Your task to perform on an android device: star an email in the gmail app Image 0: 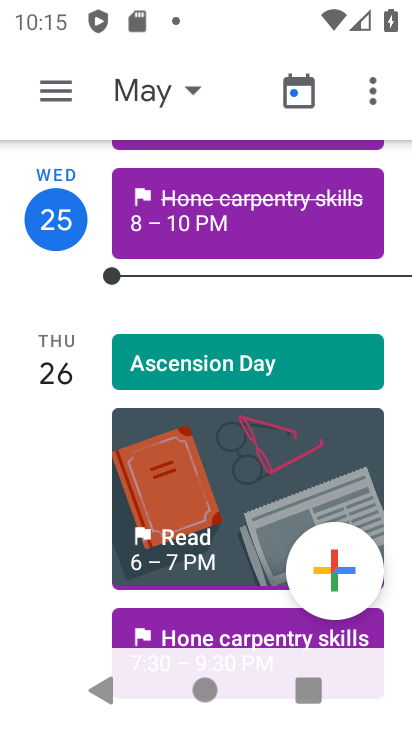
Step 0: press home button
Your task to perform on an android device: star an email in the gmail app Image 1: 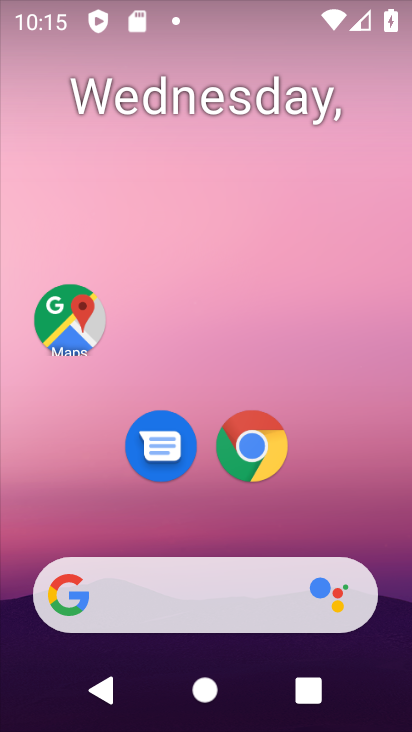
Step 1: drag from (93, 547) to (215, 119)
Your task to perform on an android device: star an email in the gmail app Image 2: 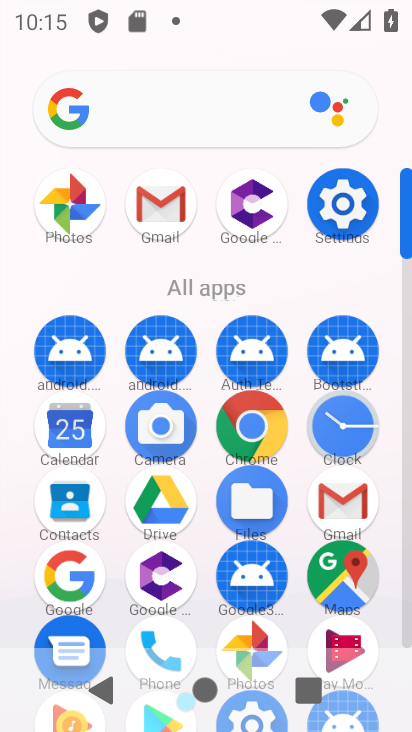
Step 2: click (344, 502)
Your task to perform on an android device: star an email in the gmail app Image 3: 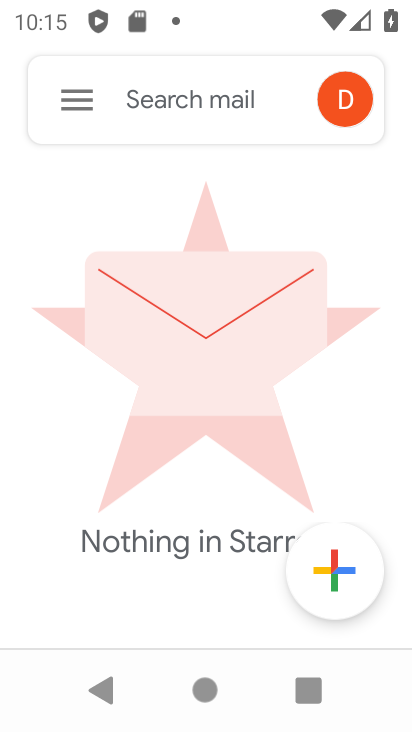
Step 3: click (100, 101)
Your task to perform on an android device: star an email in the gmail app Image 4: 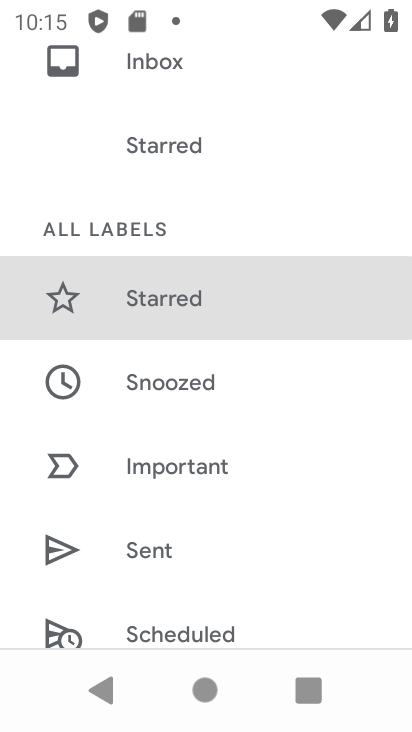
Step 4: drag from (205, 608) to (309, 238)
Your task to perform on an android device: star an email in the gmail app Image 5: 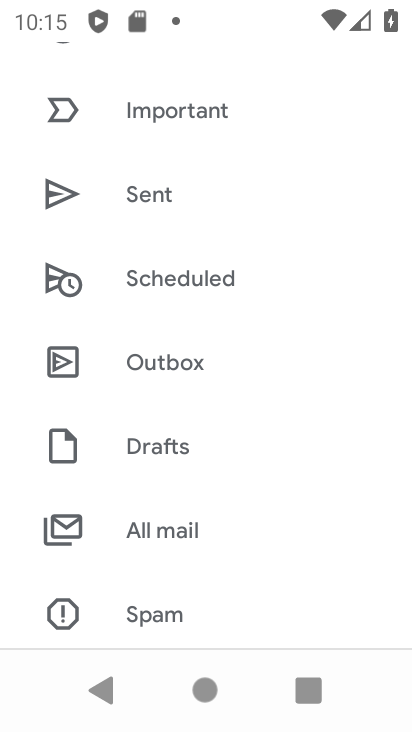
Step 5: click (178, 529)
Your task to perform on an android device: star an email in the gmail app Image 6: 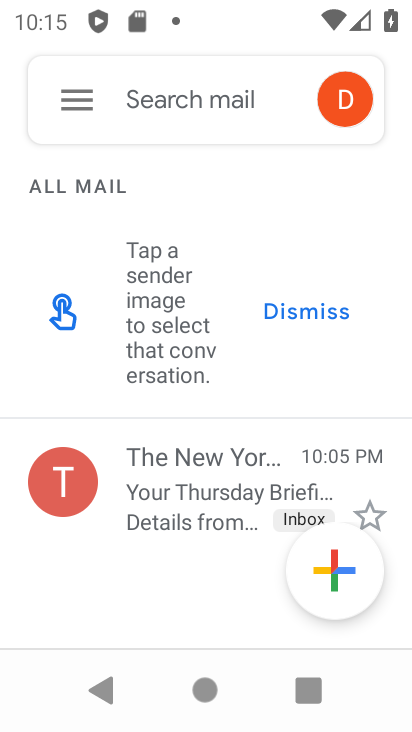
Step 6: click (365, 516)
Your task to perform on an android device: star an email in the gmail app Image 7: 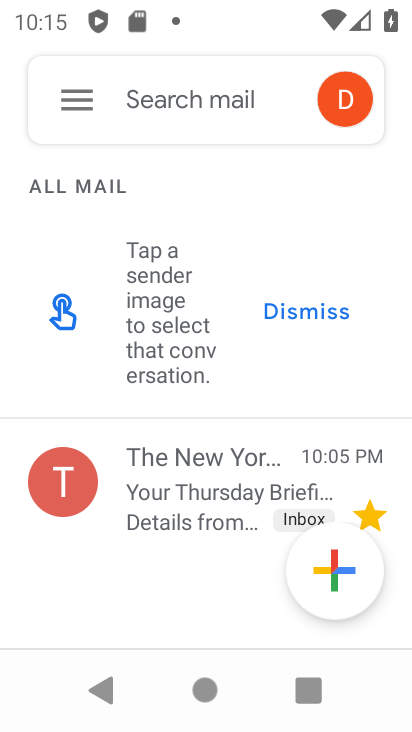
Step 7: task complete